Your task to perform on an android device: Show me popular games on the Play Store Image 0: 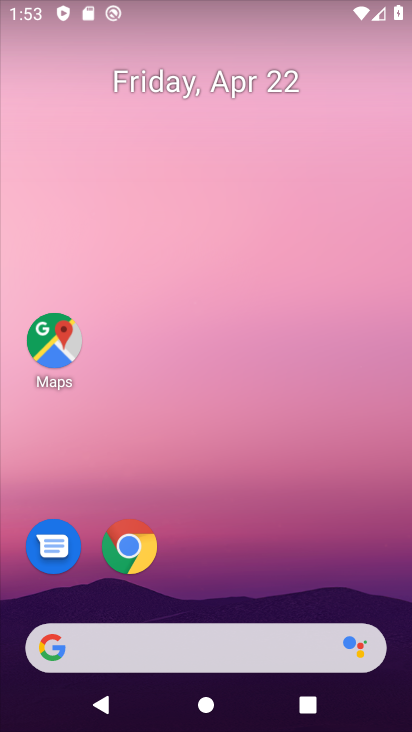
Step 0: drag from (206, 614) to (309, 5)
Your task to perform on an android device: Show me popular games on the Play Store Image 1: 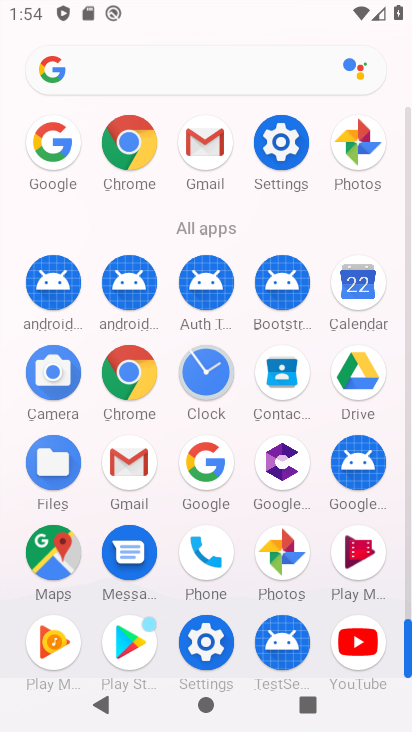
Step 1: click (133, 651)
Your task to perform on an android device: Show me popular games on the Play Store Image 2: 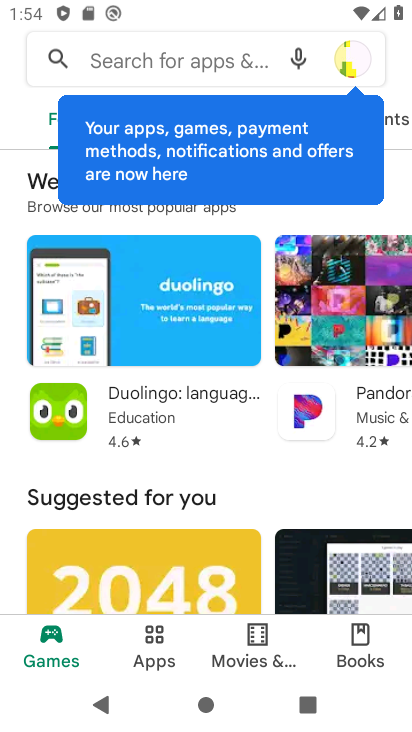
Step 2: task complete